Your task to perform on an android device: read, delete, or share a saved page in the chrome app Image 0: 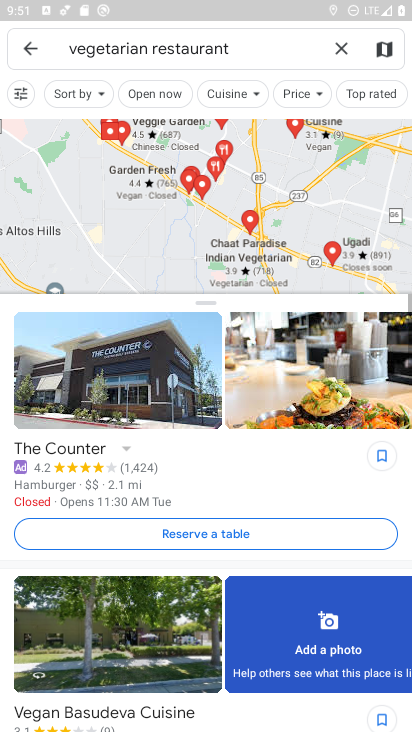
Step 0: press home button
Your task to perform on an android device: read, delete, or share a saved page in the chrome app Image 1: 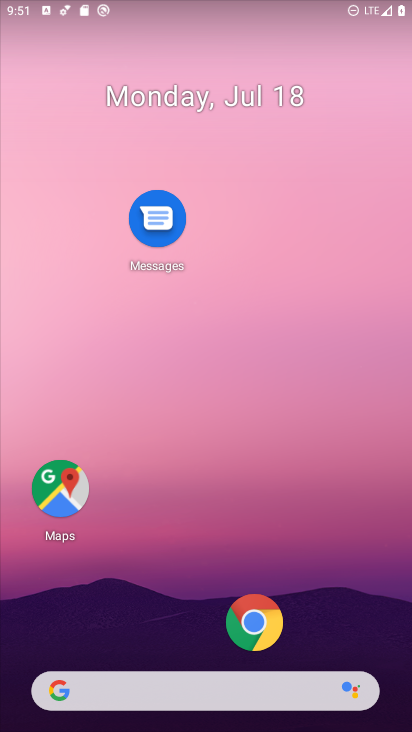
Step 1: click (252, 630)
Your task to perform on an android device: read, delete, or share a saved page in the chrome app Image 2: 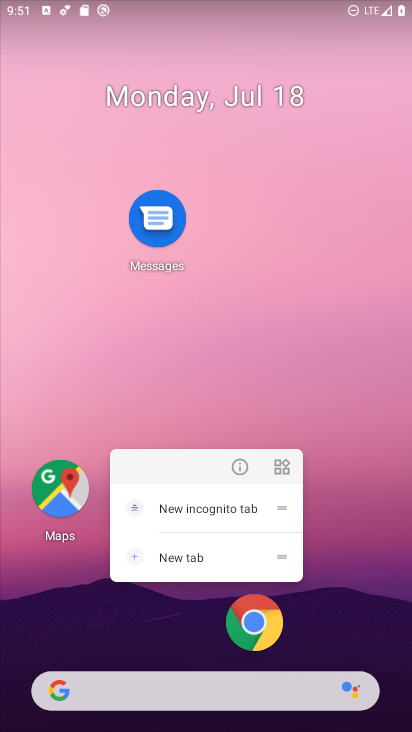
Step 2: click (253, 625)
Your task to perform on an android device: read, delete, or share a saved page in the chrome app Image 3: 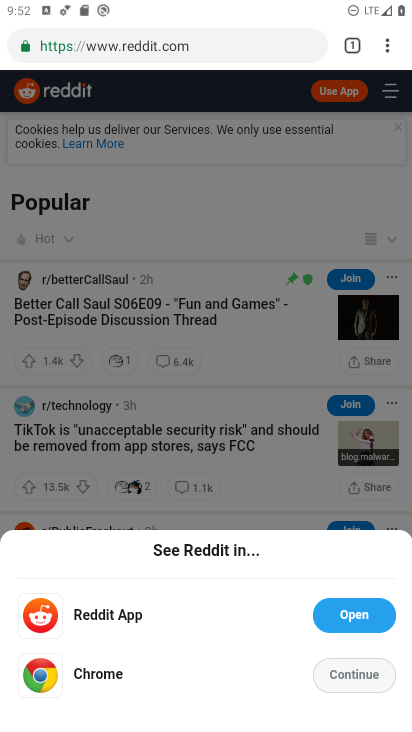
Step 3: click (385, 53)
Your task to perform on an android device: read, delete, or share a saved page in the chrome app Image 4: 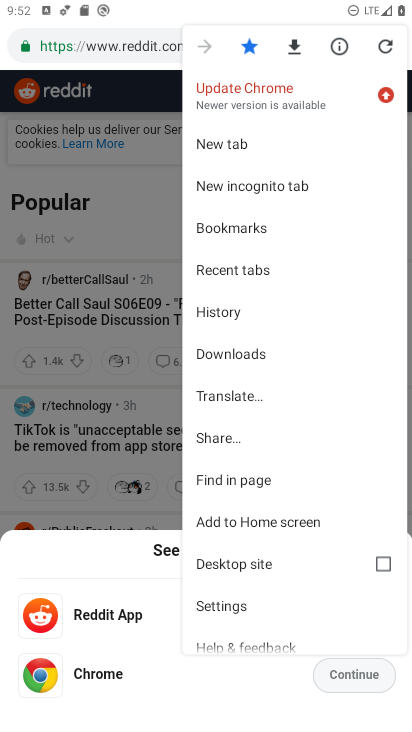
Step 4: click (238, 359)
Your task to perform on an android device: read, delete, or share a saved page in the chrome app Image 5: 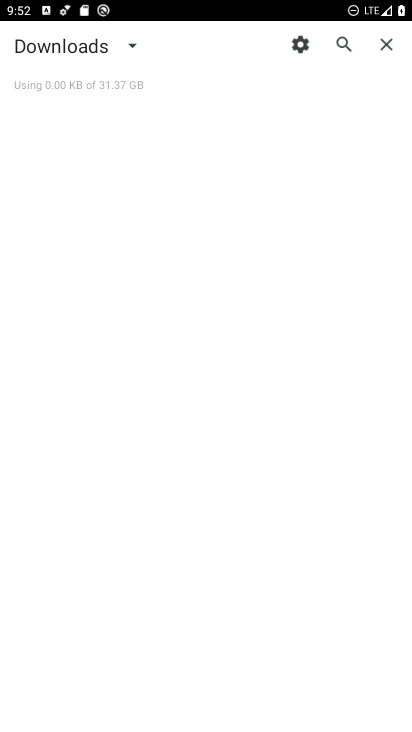
Step 5: click (125, 52)
Your task to perform on an android device: read, delete, or share a saved page in the chrome app Image 6: 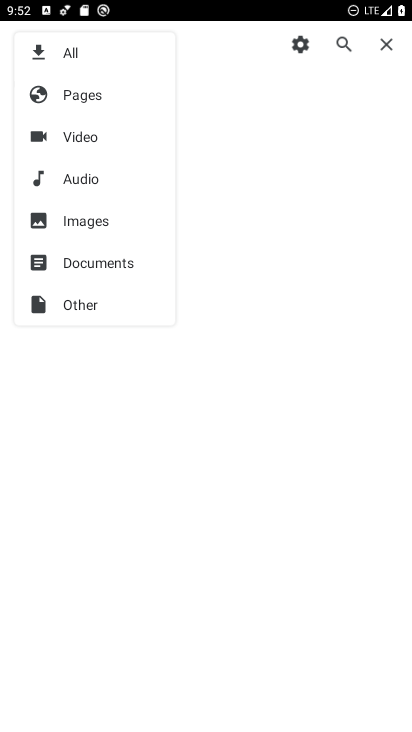
Step 6: click (88, 101)
Your task to perform on an android device: read, delete, or share a saved page in the chrome app Image 7: 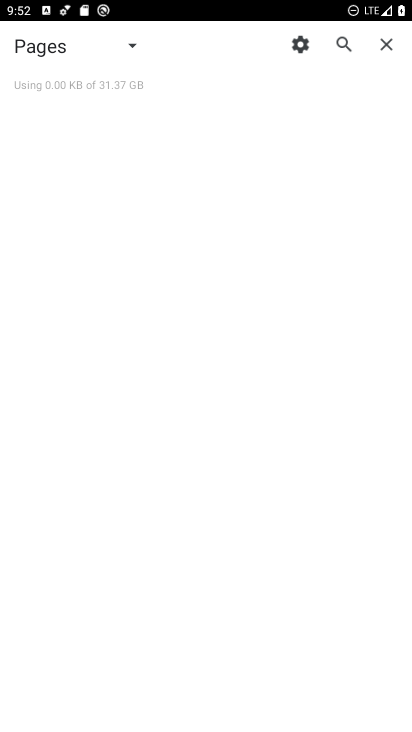
Step 7: task complete